Your task to perform on an android device: open app "Move to iOS" (install if not already installed) and go to login screen Image 0: 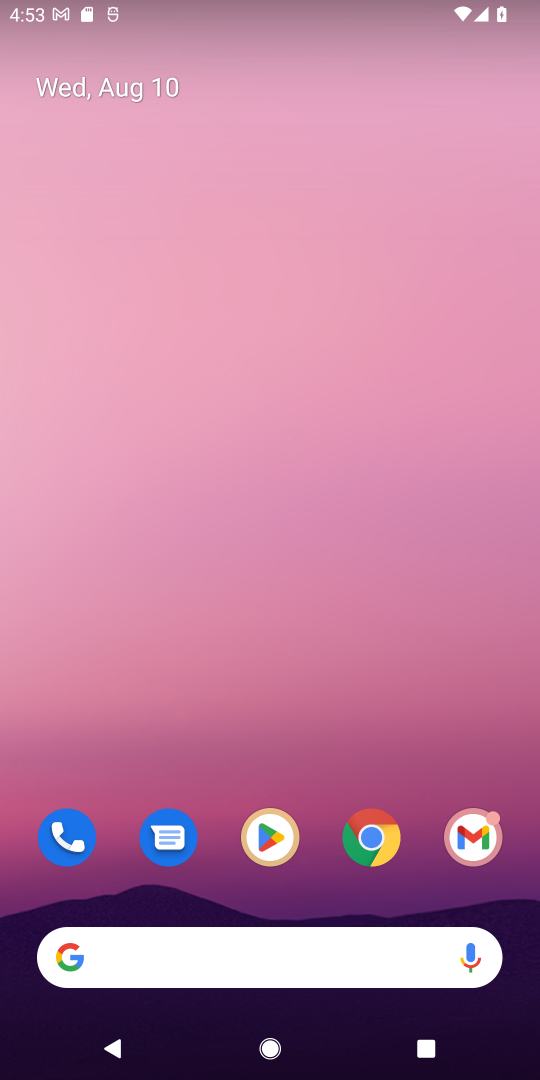
Step 0: click (269, 841)
Your task to perform on an android device: open app "Move to iOS" (install if not already installed) and go to login screen Image 1: 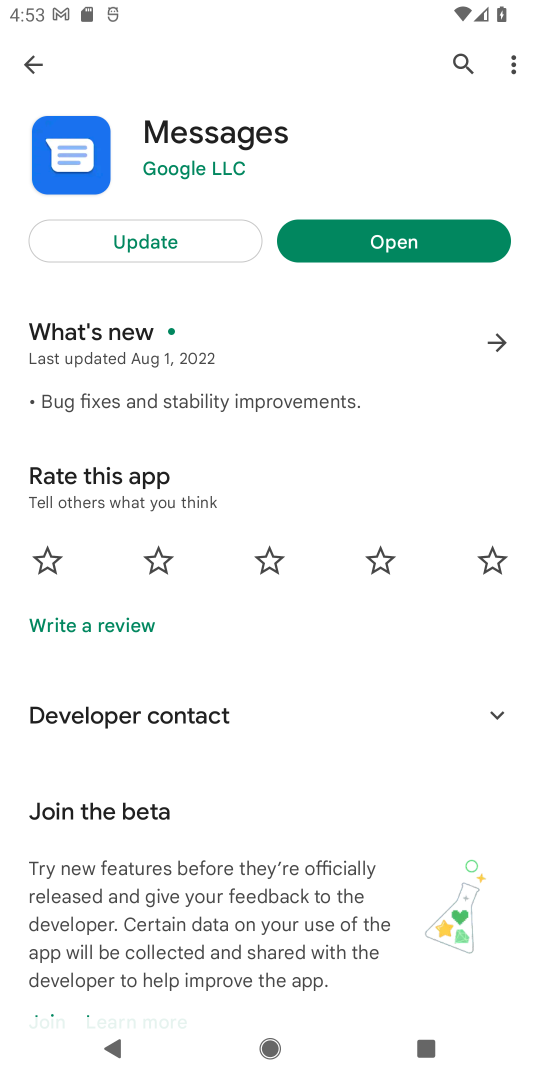
Step 1: click (457, 55)
Your task to perform on an android device: open app "Move to iOS" (install if not already installed) and go to login screen Image 2: 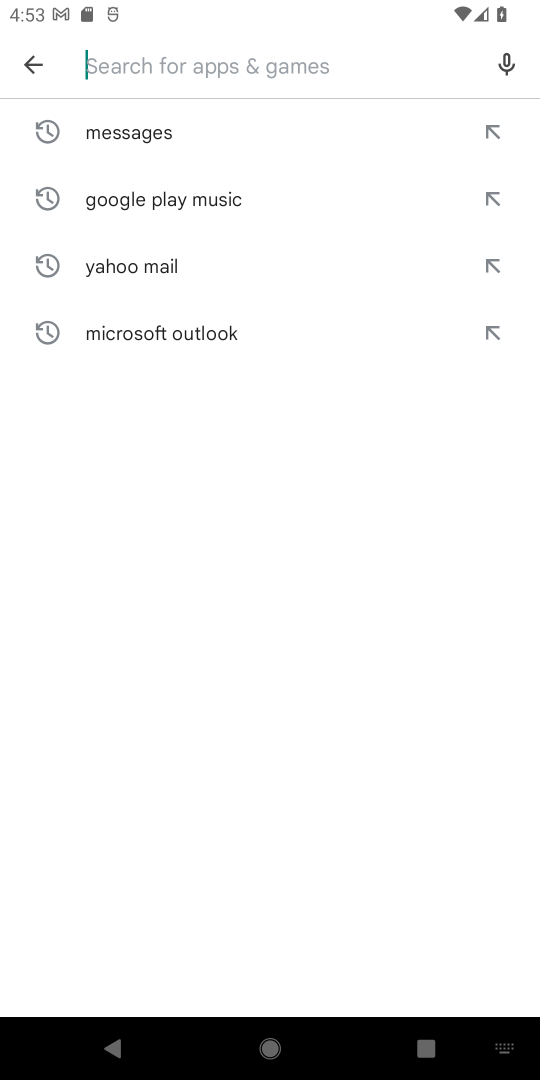
Step 2: type "Move to iOS"
Your task to perform on an android device: open app "Move to iOS" (install if not already installed) and go to login screen Image 3: 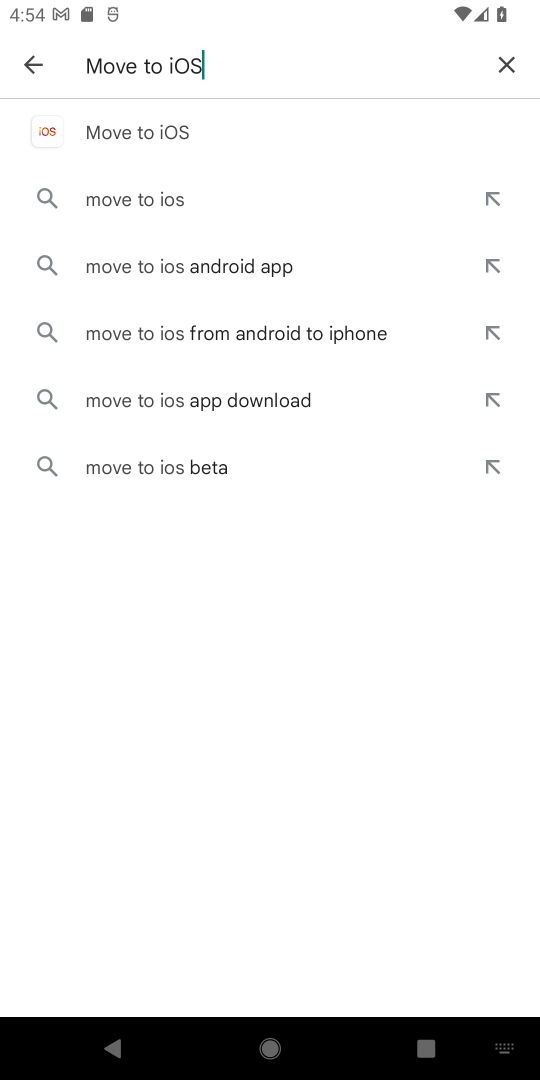
Step 3: click (167, 129)
Your task to perform on an android device: open app "Move to iOS" (install if not already installed) and go to login screen Image 4: 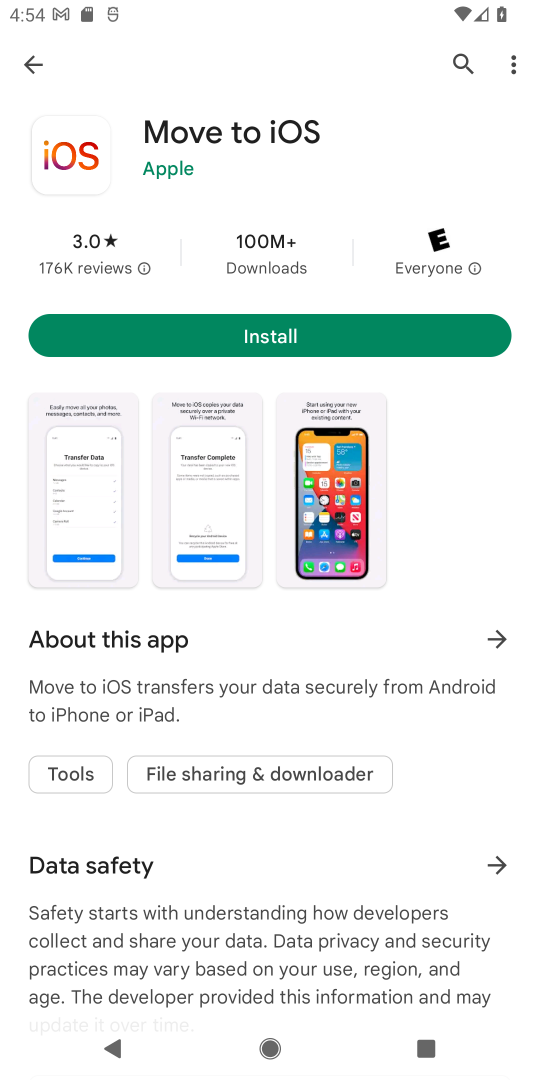
Step 4: click (278, 335)
Your task to perform on an android device: open app "Move to iOS" (install if not already installed) and go to login screen Image 5: 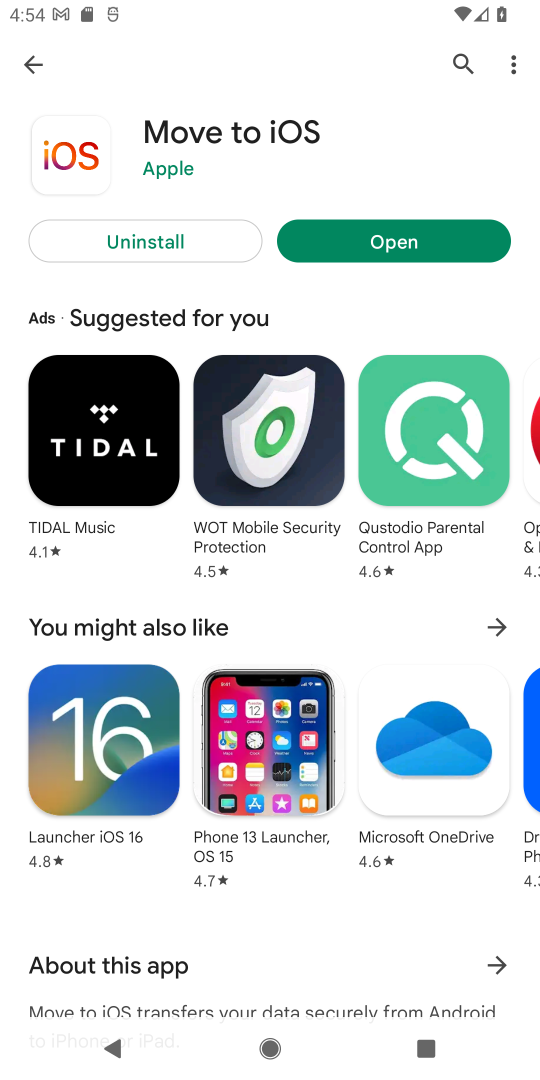
Step 5: click (327, 249)
Your task to perform on an android device: open app "Move to iOS" (install if not already installed) and go to login screen Image 6: 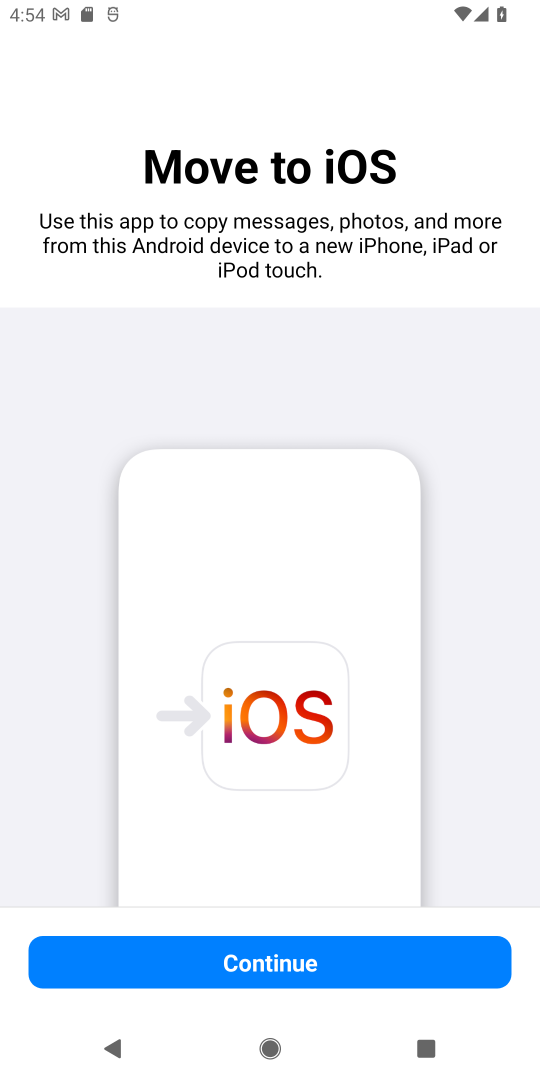
Step 6: click (314, 963)
Your task to perform on an android device: open app "Move to iOS" (install if not already installed) and go to login screen Image 7: 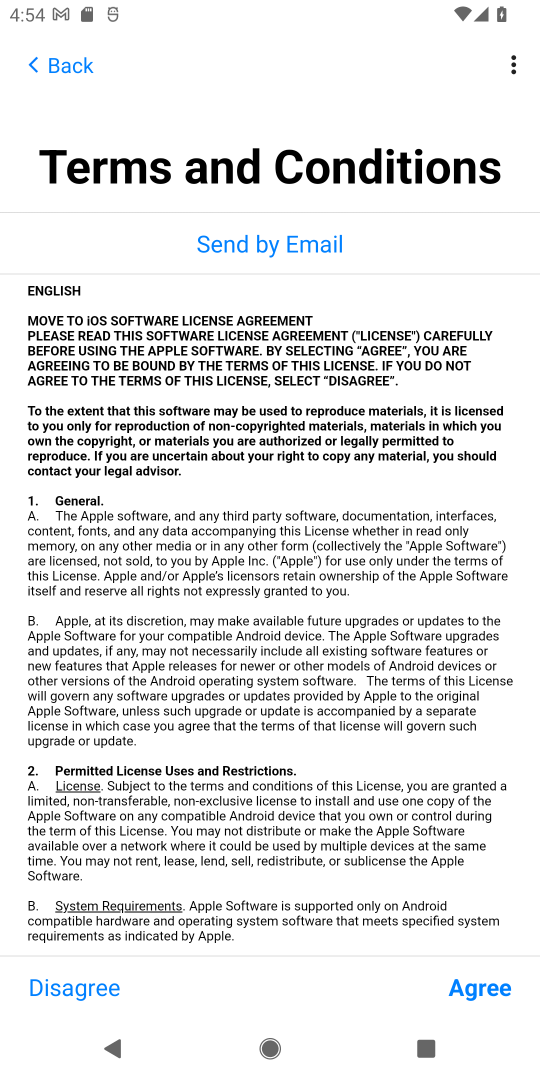
Step 7: click (463, 987)
Your task to perform on an android device: open app "Move to iOS" (install if not already installed) and go to login screen Image 8: 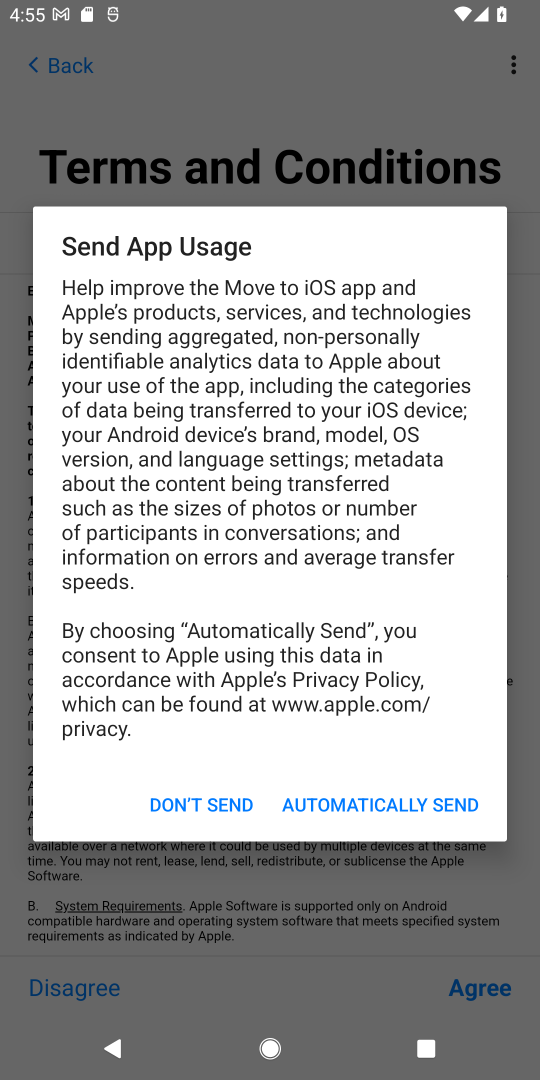
Step 8: click (221, 804)
Your task to perform on an android device: open app "Move to iOS" (install if not already installed) and go to login screen Image 9: 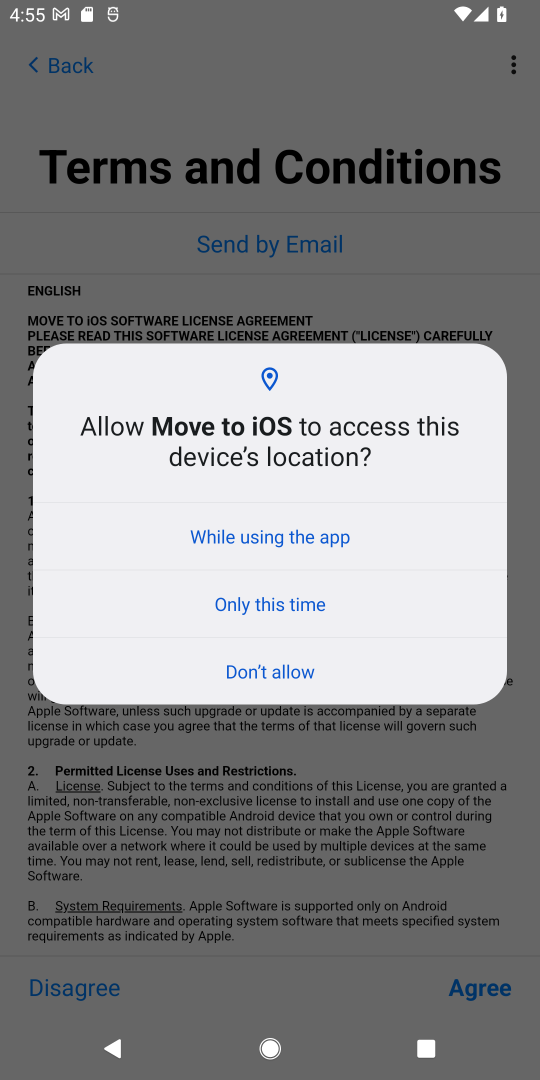
Step 9: click (331, 603)
Your task to perform on an android device: open app "Move to iOS" (install if not already installed) and go to login screen Image 10: 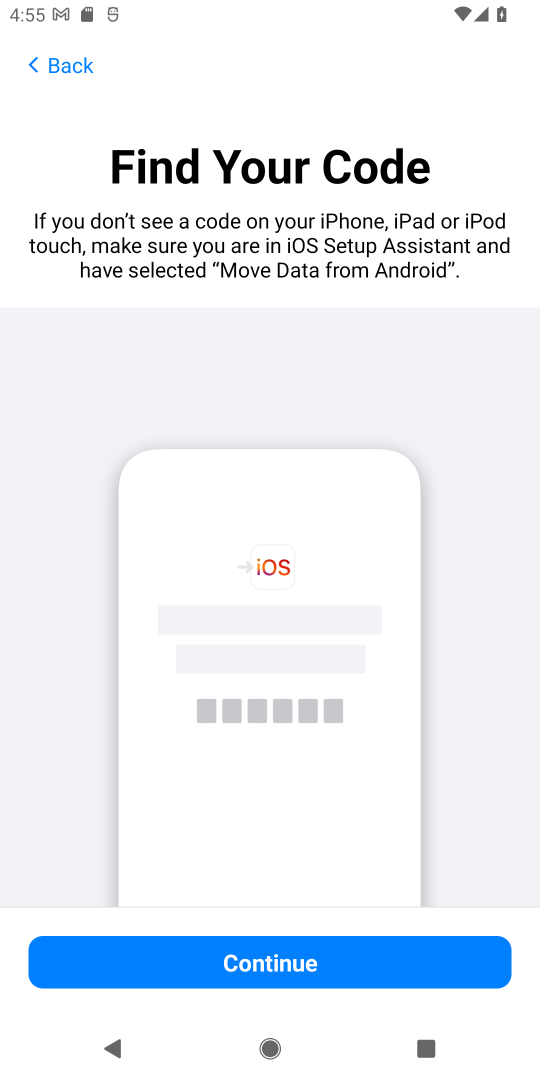
Step 10: click (321, 960)
Your task to perform on an android device: open app "Move to iOS" (install if not already installed) and go to login screen Image 11: 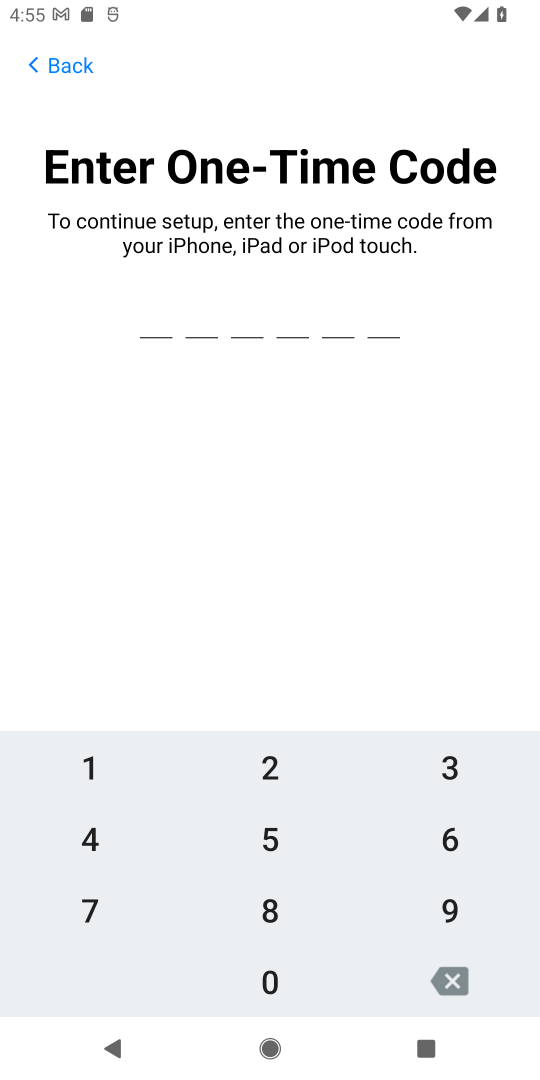
Step 11: task complete